Your task to perform on an android device: Search for pizza restaurants on Maps Image 0: 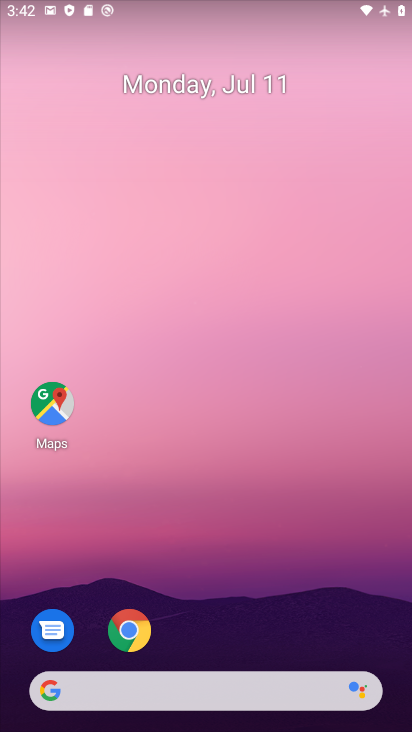
Step 0: drag from (246, 591) to (207, 258)
Your task to perform on an android device: Search for pizza restaurants on Maps Image 1: 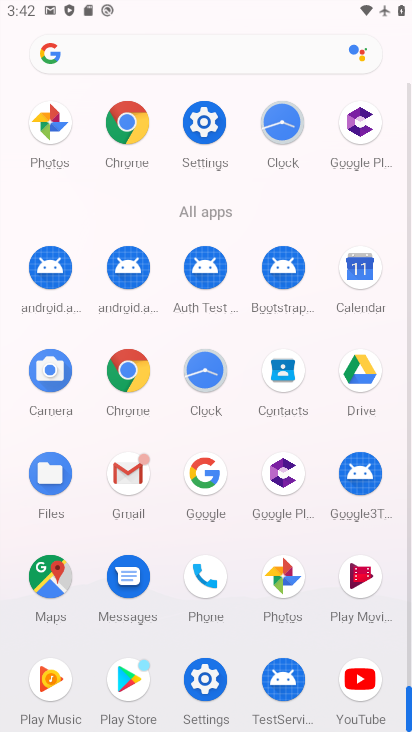
Step 1: click (54, 575)
Your task to perform on an android device: Search for pizza restaurants on Maps Image 2: 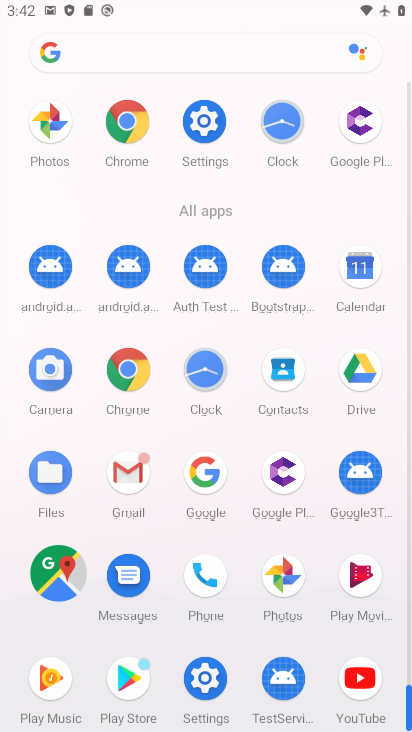
Step 2: click (52, 573)
Your task to perform on an android device: Search for pizza restaurants on Maps Image 3: 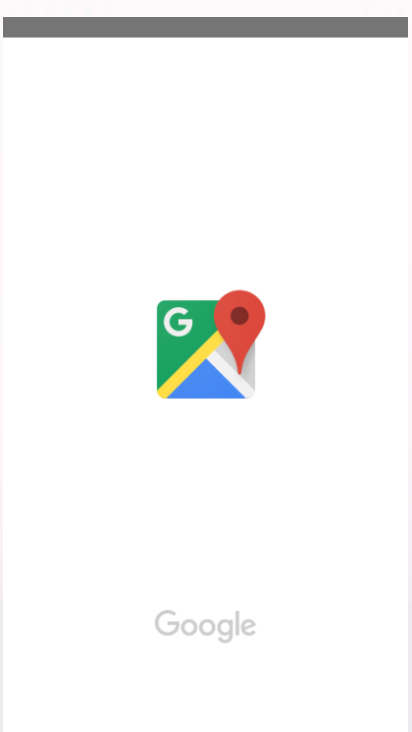
Step 3: click (49, 570)
Your task to perform on an android device: Search for pizza restaurants on Maps Image 4: 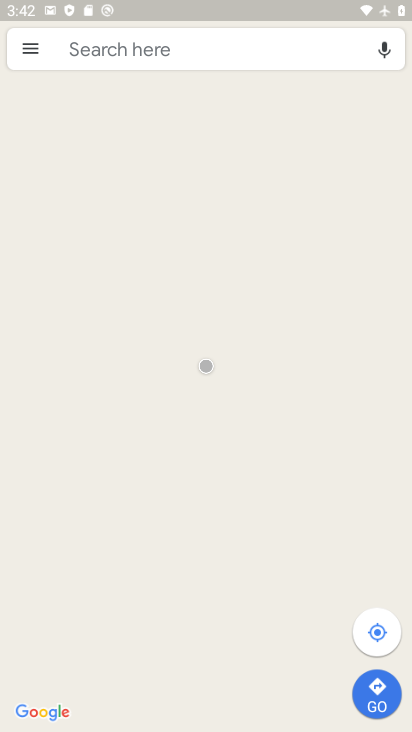
Step 4: click (80, 53)
Your task to perform on an android device: Search for pizza restaurants on Maps Image 5: 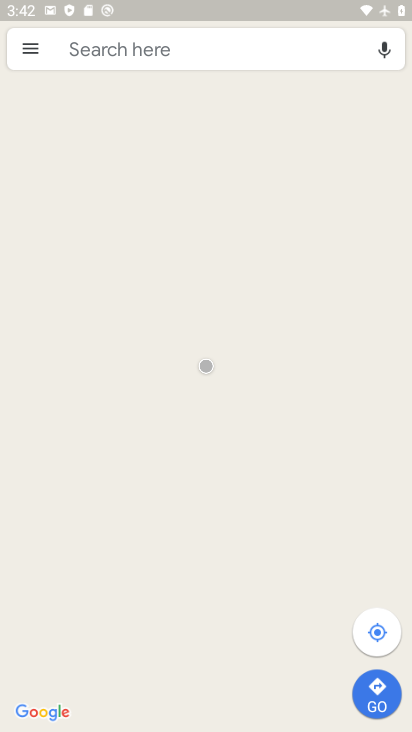
Step 5: click (78, 53)
Your task to perform on an android device: Search for pizza restaurants on Maps Image 6: 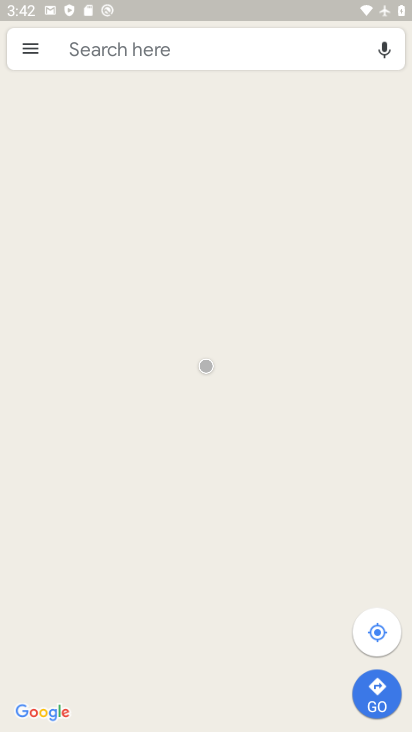
Step 6: click (78, 53)
Your task to perform on an android device: Search for pizza restaurants on Maps Image 7: 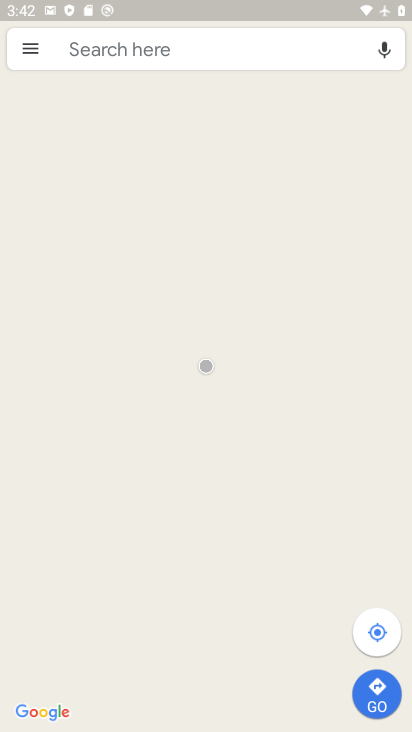
Step 7: click (78, 53)
Your task to perform on an android device: Search for pizza restaurants on Maps Image 8: 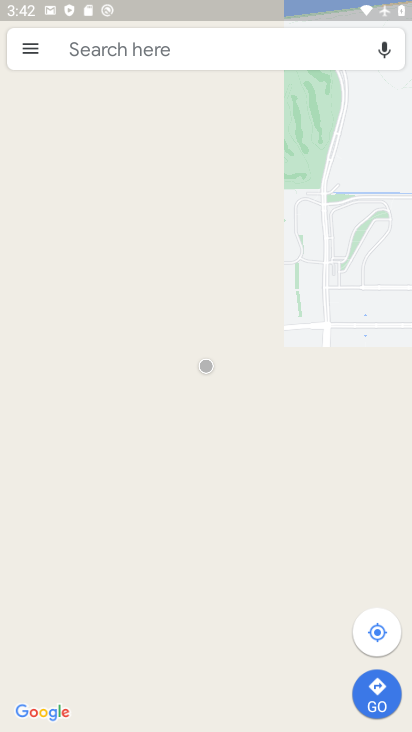
Step 8: click (78, 53)
Your task to perform on an android device: Search for pizza restaurants on Maps Image 9: 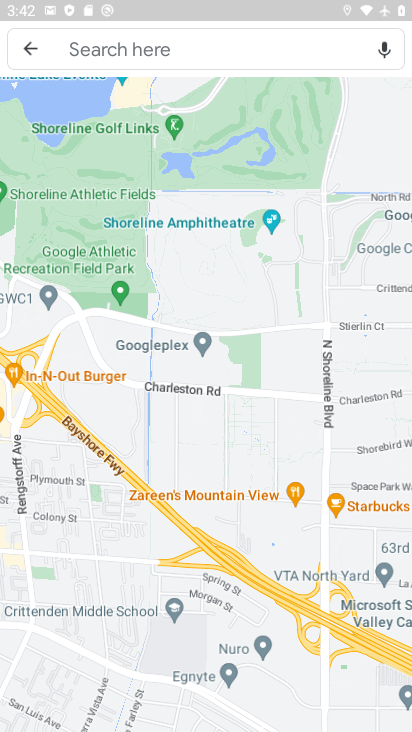
Step 9: click (71, 50)
Your task to perform on an android device: Search for pizza restaurants on Maps Image 10: 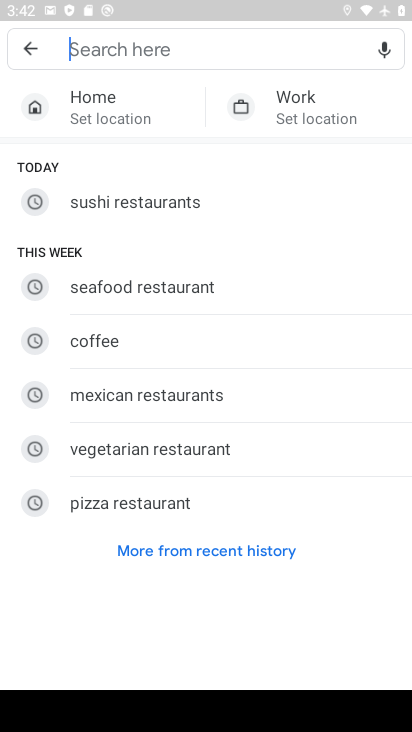
Step 10: click (175, 506)
Your task to perform on an android device: Search for pizza restaurants on Maps Image 11: 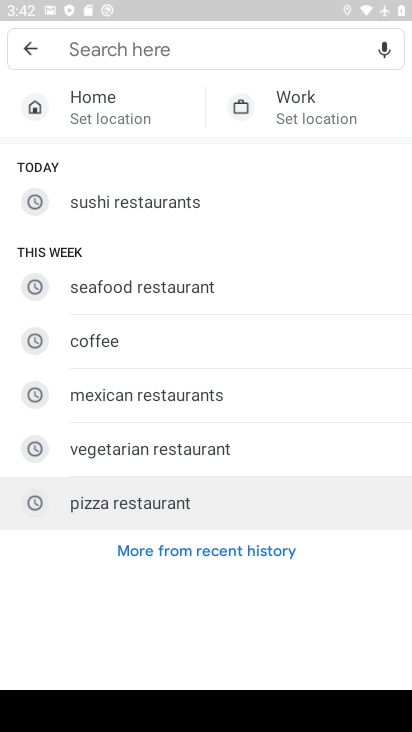
Step 11: click (168, 516)
Your task to perform on an android device: Search for pizza restaurants on Maps Image 12: 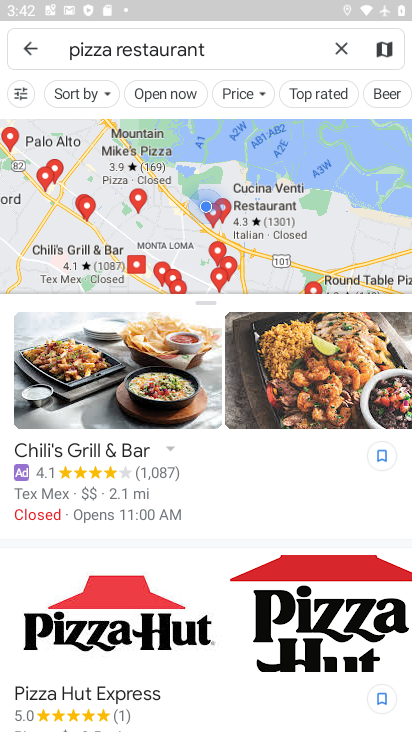
Step 12: task complete